Your task to perform on an android device: toggle data saver in the chrome app Image 0: 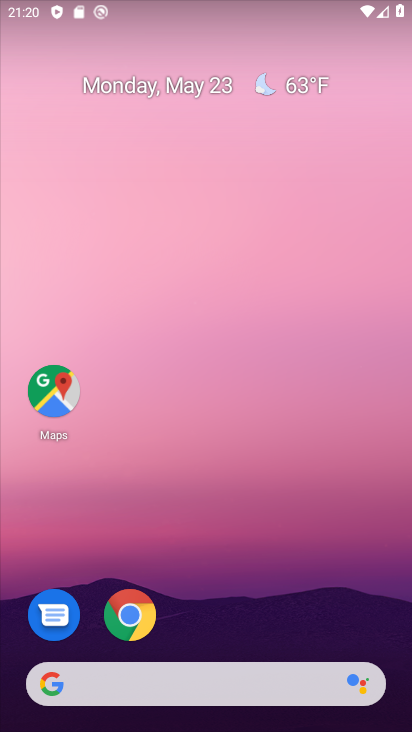
Step 0: drag from (227, 593) to (259, 139)
Your task to perform on an android device: toggle data saver in the chrome app Image 1: 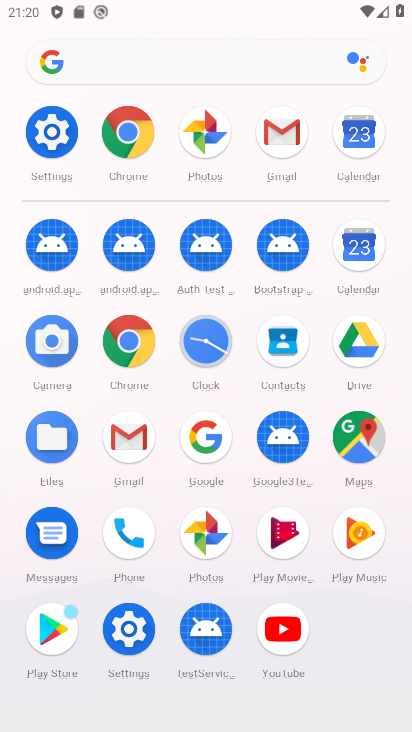
Step 1: click (127, 340)
Your task to perform on an android device: toggle data saver in the chrome app Image 2: 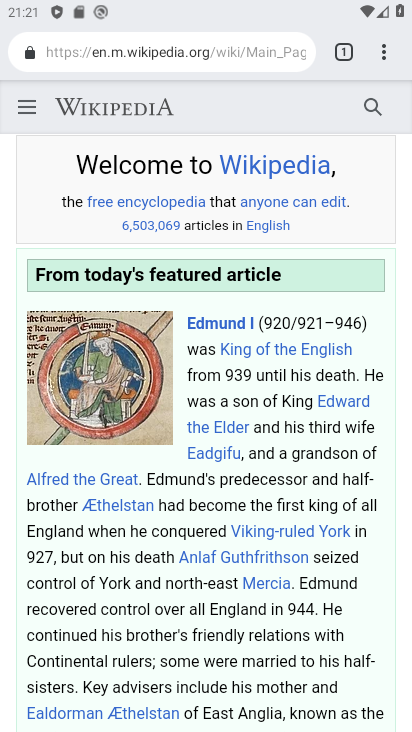
Step 2: click (379, 57)
Your task to perform on an android device: toggle data saver in the chrome app Image 3: 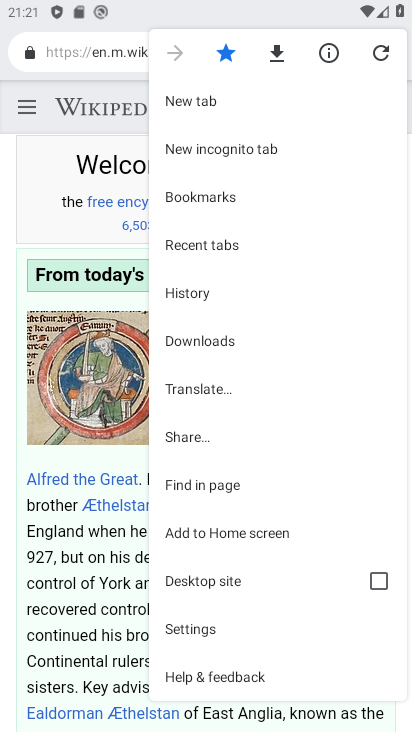
Step 3: click (221, 630)
Your task to perform on an android device: toggle data saver in the chrome app Image 4: 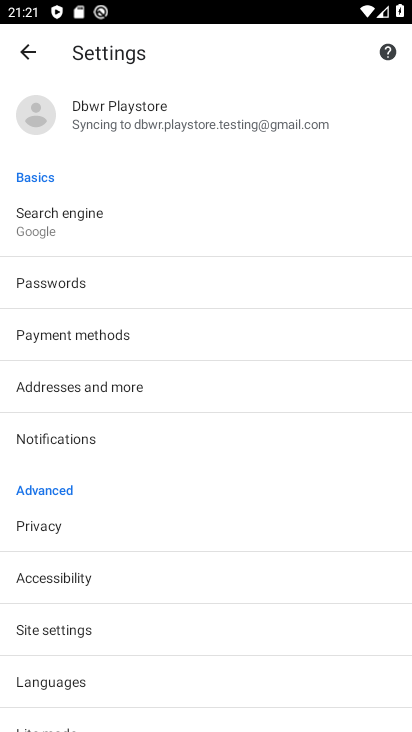
Step 4: drag from (137, 633) to (150, 360)
Your task to perform on an android device: toggle data saver in the chrome app Image 5: 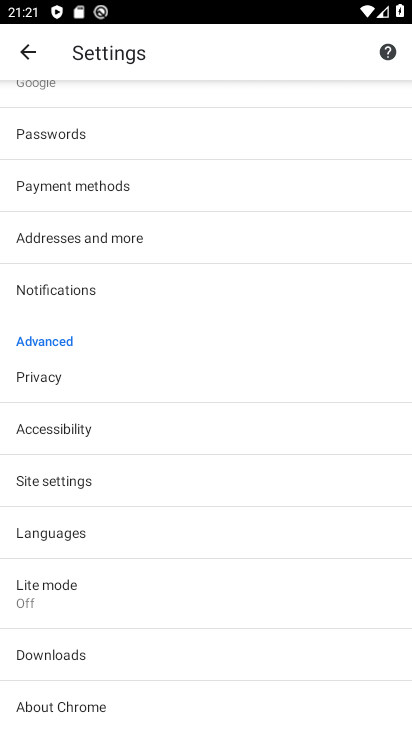
Step 5: click (52, 596)
Your task to perform on an android device: toggle data saver in the chrome app Image 6: 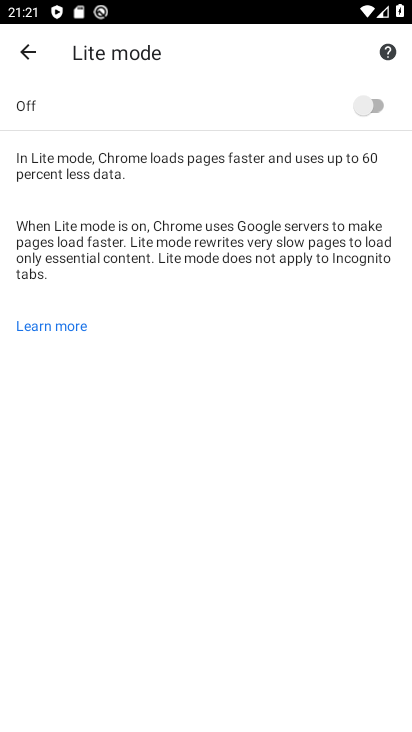
Step 6: click (379, 102)
Your task to perform on an android device: toggle data saver in the chrome app Image 7: 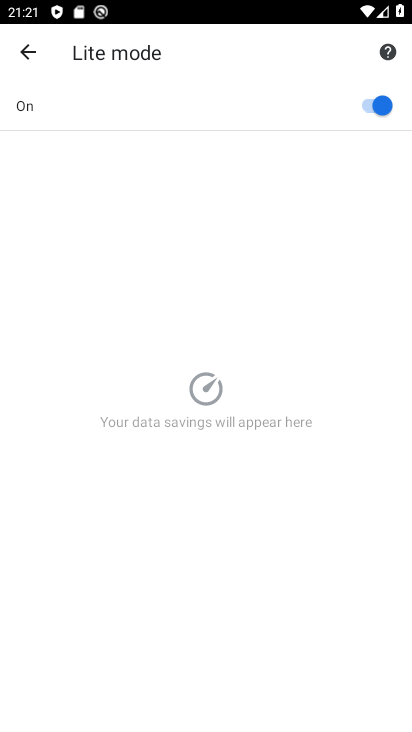
Step 7: task complete